Your task to perform on an android device: turn on airplane mode Image 0: 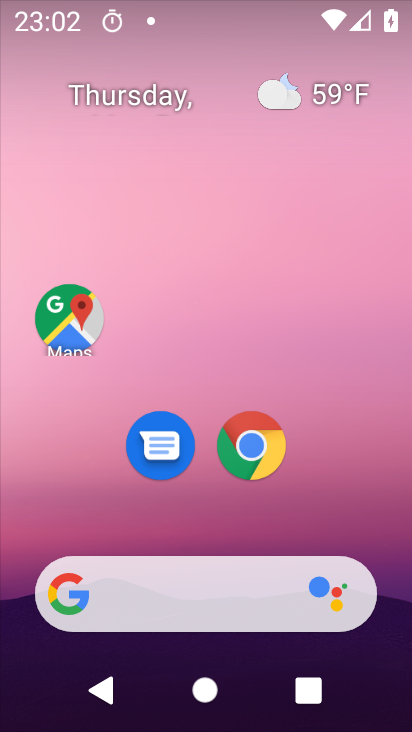
Step 0: drag from (267, 576) to (300, 184)
Your task to perform on an android device: turn on airplane mode Image 1: 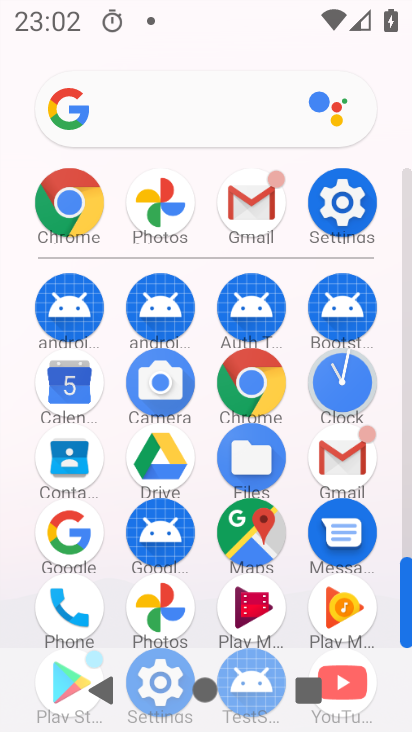
Step 1: click (335, 193)
Your task to perform on an android device: turn on airplane mode Image 2: 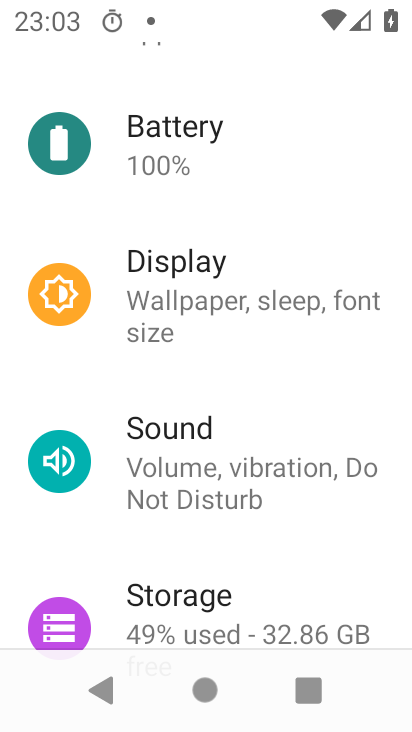
Step 2: drag from (150, 153) to (207, 642)
Your task to perform on an android device: turn on airplane mode Image 3: 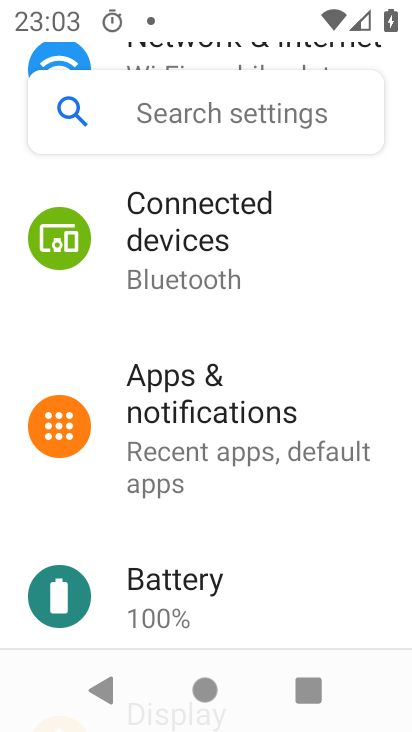
Step 3: drag from (203, 202) to (216, 683)
Your task to perform on an android device: turn on airplane mode Image 4: 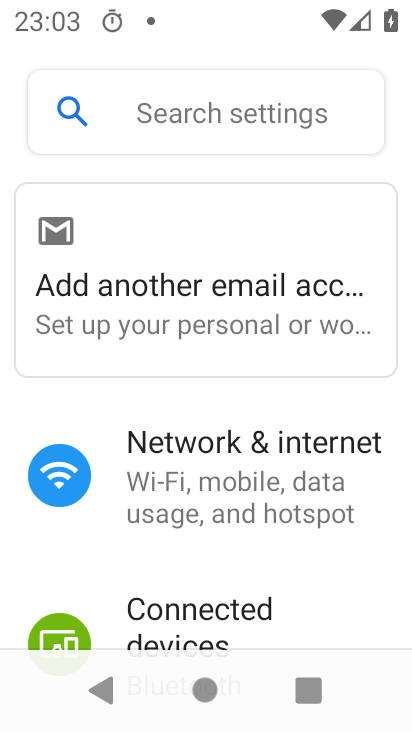
Step 4: click (221, 487)
Your task to perform on an android device: turn on airplane mode Image 5: 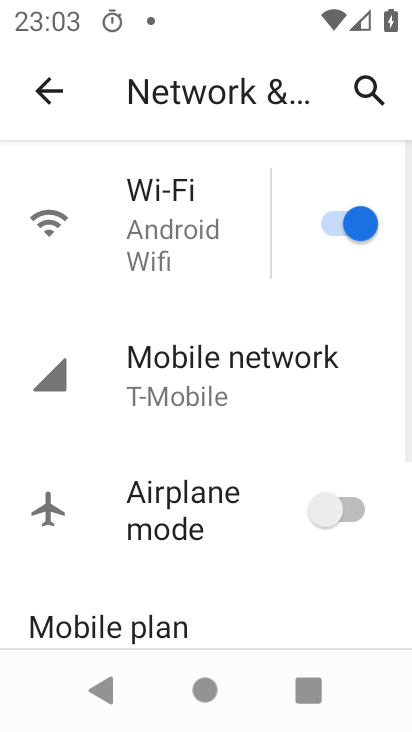
Step 5: click (327, 512)
Your task to perform on an android device: turn on airplane mode Image 6: 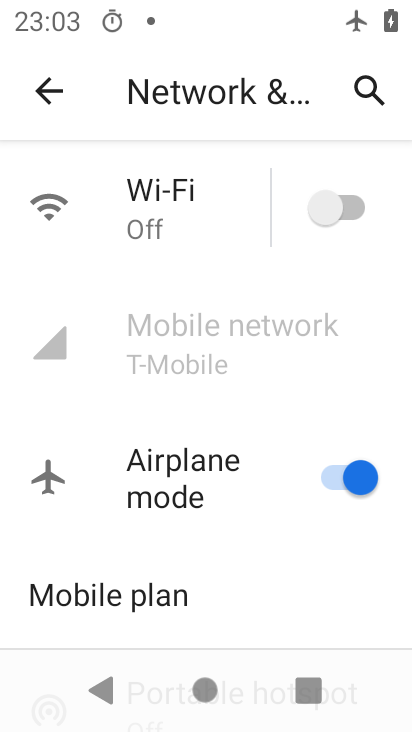
Step 6: task complete